Your task to perform on an android device: delete location history Image 0: 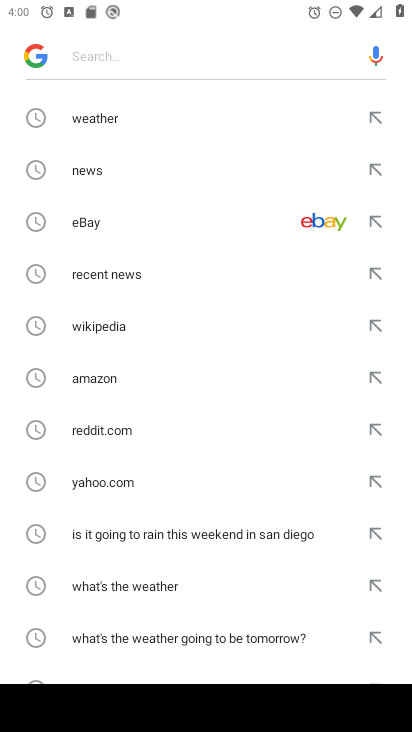
Step 0: press home button
Your task to perform on an android device: delete location history Image 1: 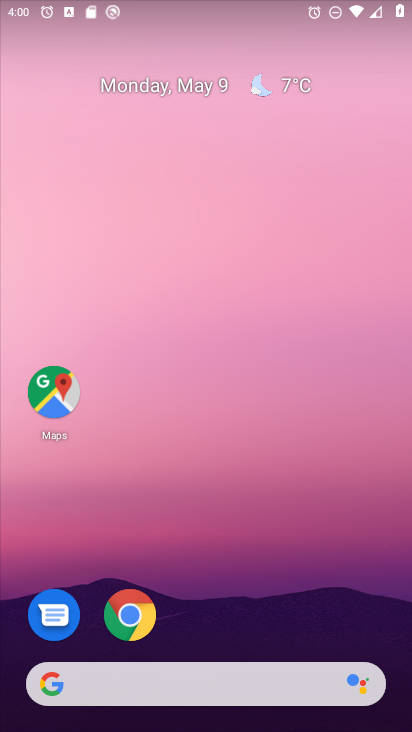
Step 1: click (51, 389)
Your task to perform on an android device: delete location history Image 2: 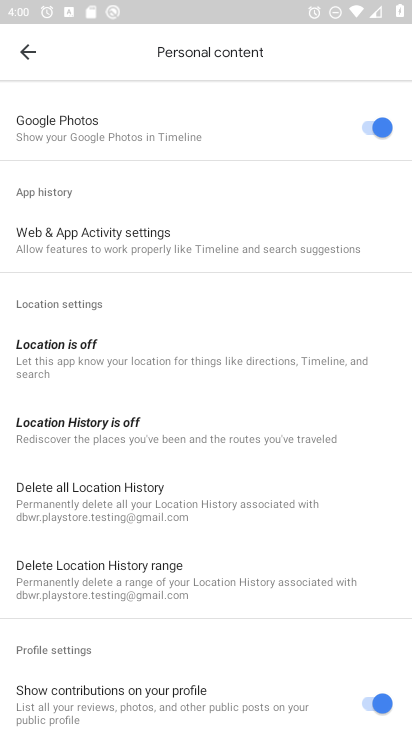
Step 2: click (83, 490)
Your task to perform on an android device: delete location history Image 3: 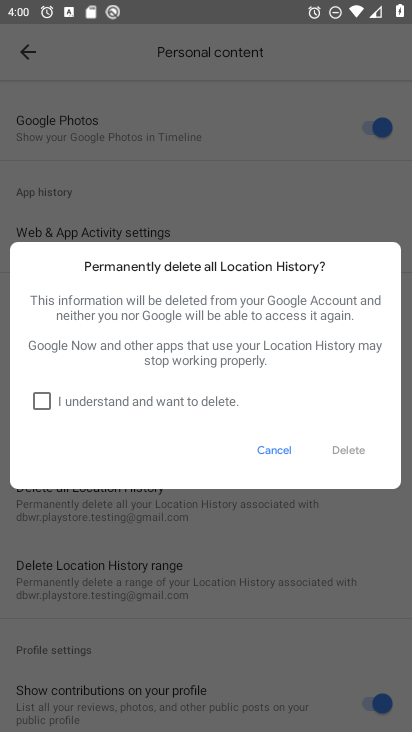
Step 3: click (41, 396)
Your task to perform on an android device: delete location history Image 4: 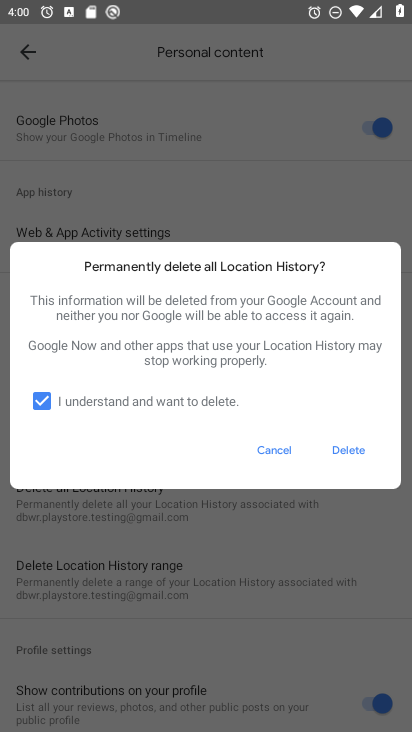
Step 4: click (349, 446)
Your task to perform on an android device: delete location history Image 5: 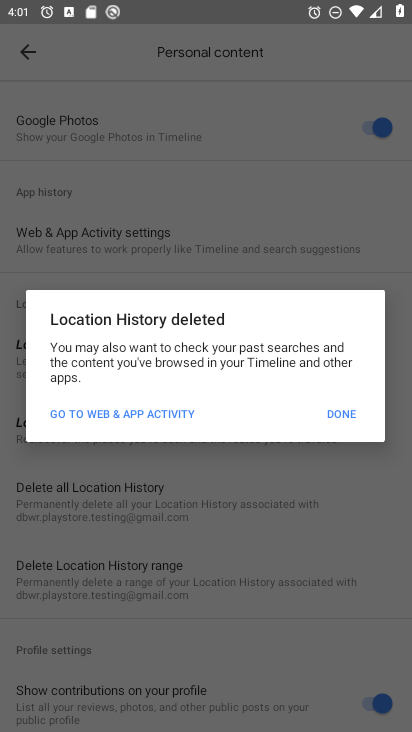
Step 5: click (339, 408)
Your task to perform on an android device: delete location history Image 6: 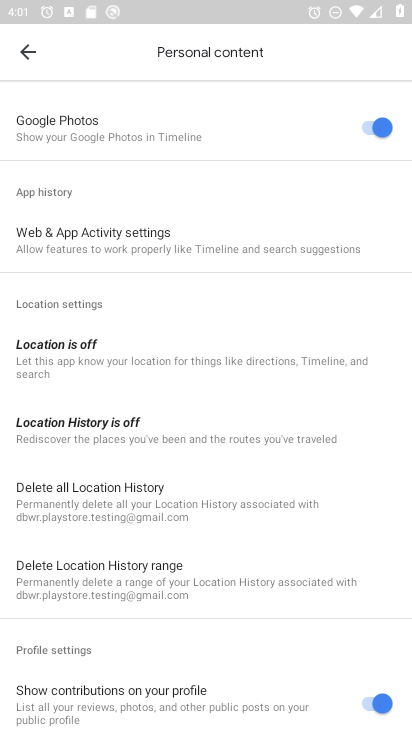
Step 6: task complete